Your task to perform on an android device: open a new tab in the chrome app Image 0: 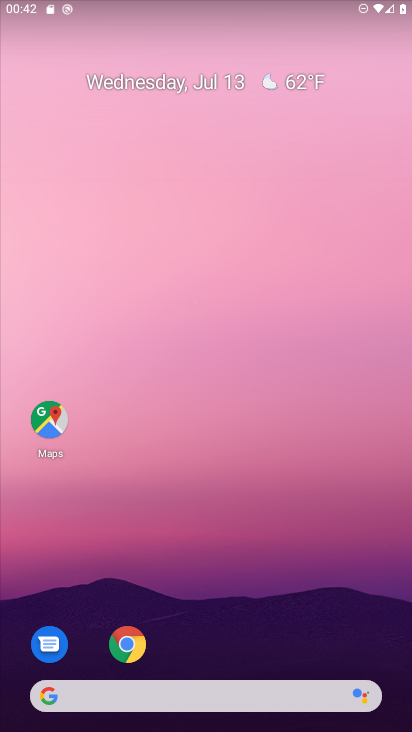
Step 0: drag from (234, 658) to (110, 3)
Your task to perform on an android device: open a new tab in the chrome app Image 1: 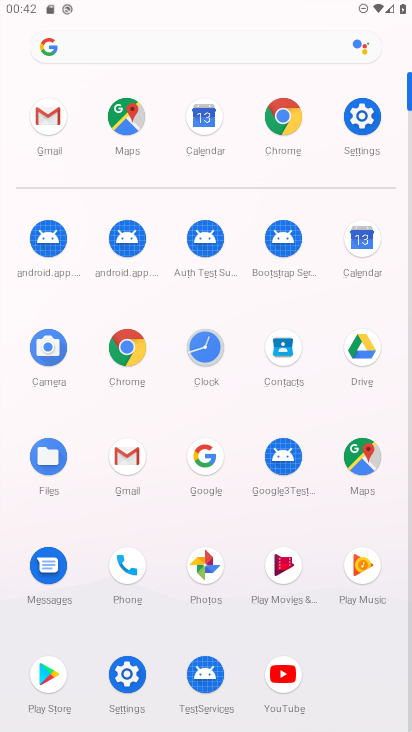
Step 1: click (282, 122)
Your task to perform on an android device: open a new tab in the chrome app Image 2: 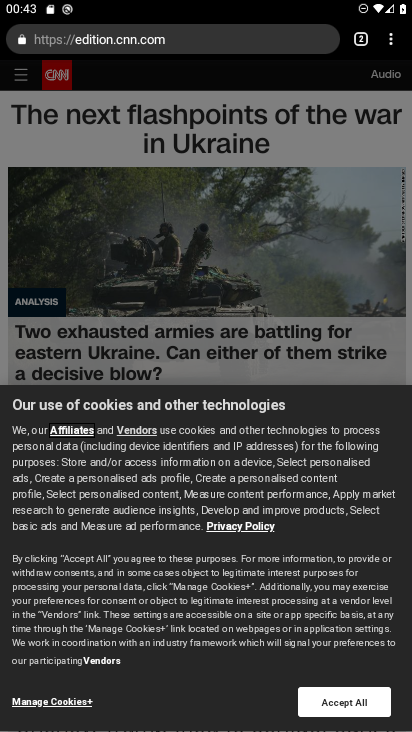
Step 2: click (360, 33)
Your task to perform on an android device: open a new tab in the chrome app Image 3: 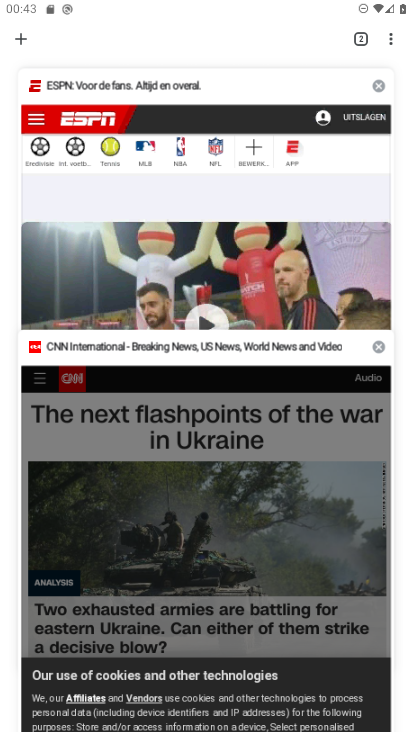
Step 3: click (19, 42)
Your task to perform on an android device: open a new tab in the chrome app Image 4: 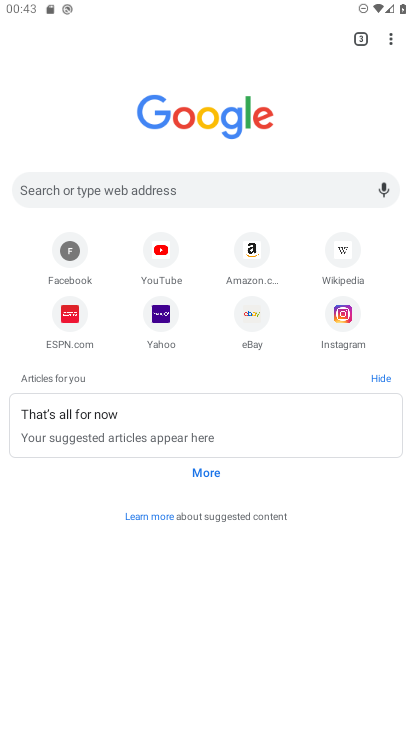
Step 4: task complete